Your task to perform on an android device: Go to network settings Image 0: 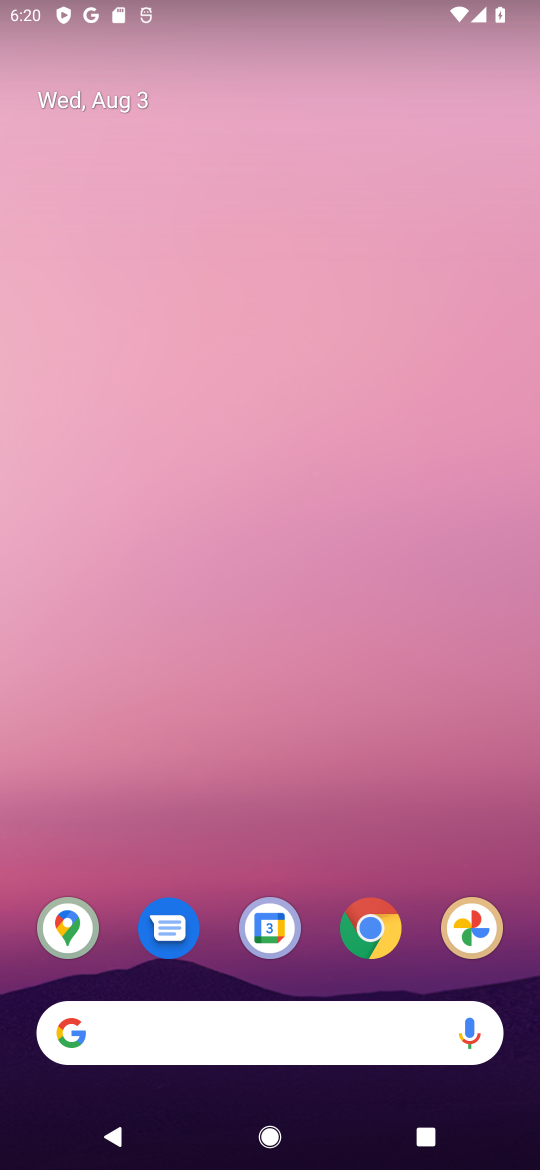
Step 0: press home button
Your task to perform on an android device: Go to network settings Image 1: 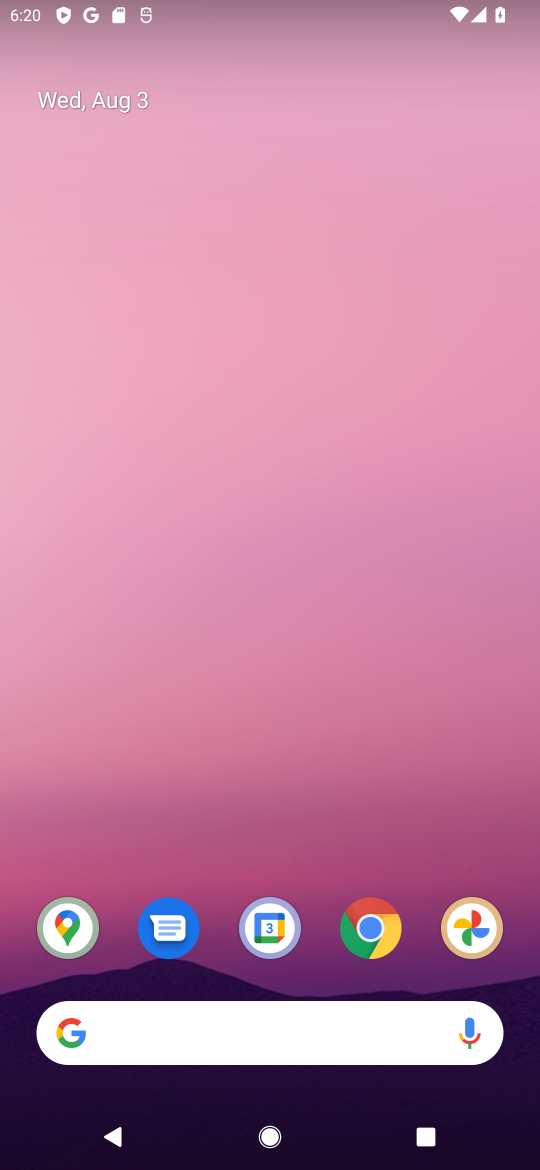
Step 1: drag from (309, 850) to (350, 147)
Your task to perform on an android device: Go to network settings Image 2: 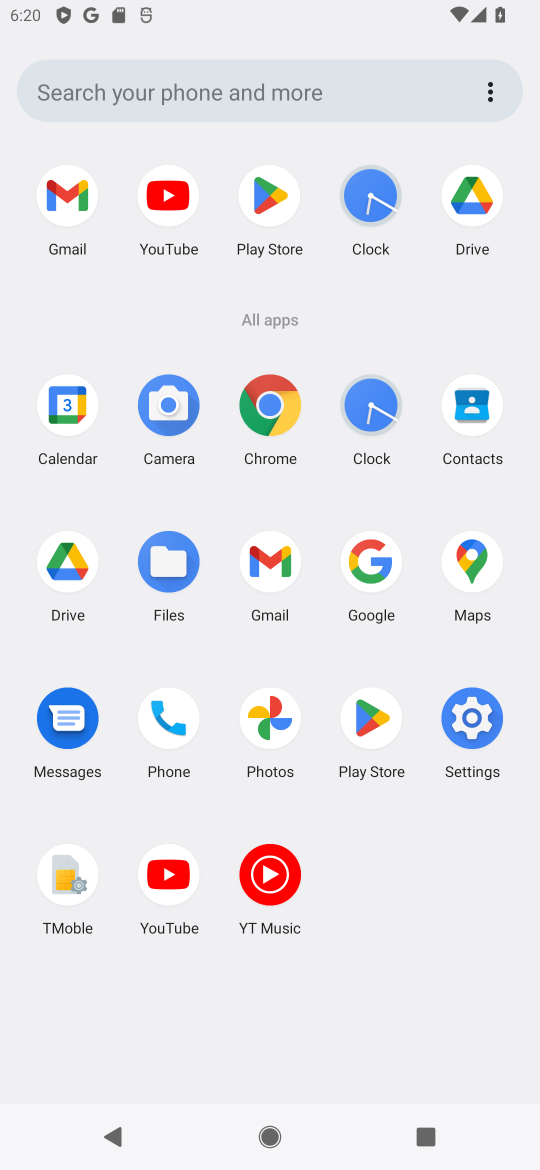
Step 2: click (478, 734)
Your task to perform on an android device: Go to network settings Image 3: 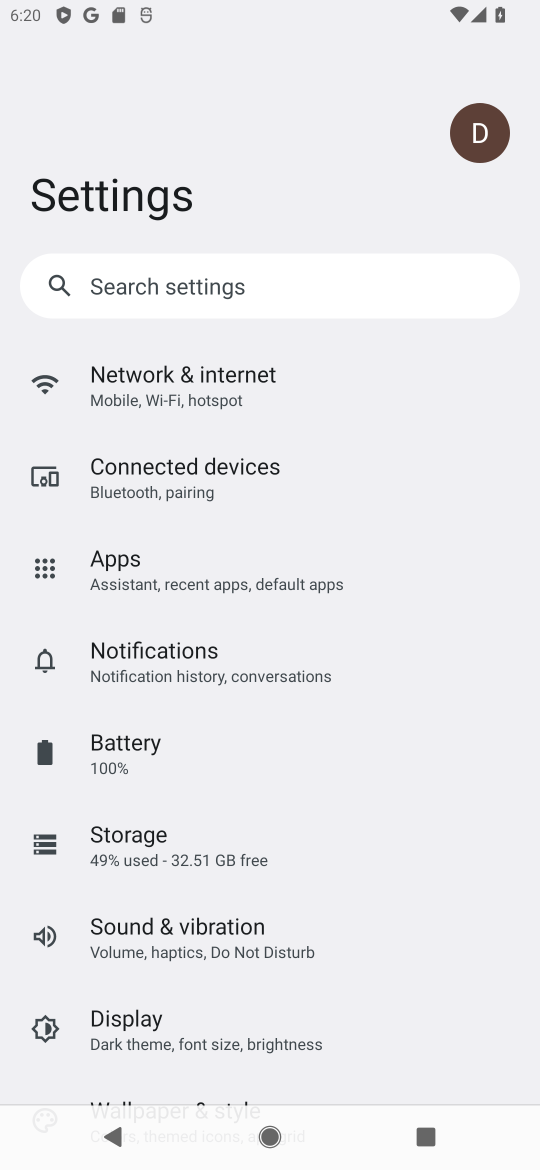
Step 3: drag from (420, 957) to (448, 735)
Your task to perform on an android device: Go to network settings Image 4: 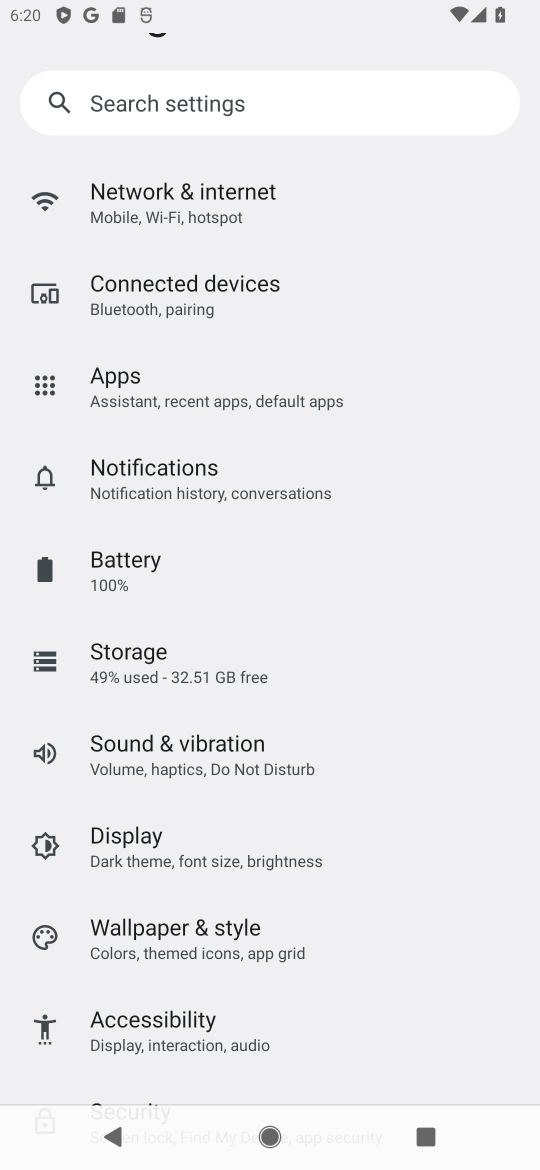
Step 4: drag from (428, 976) to (458, 801)
Your task to perform on an android device: Go to network settings Image 5: 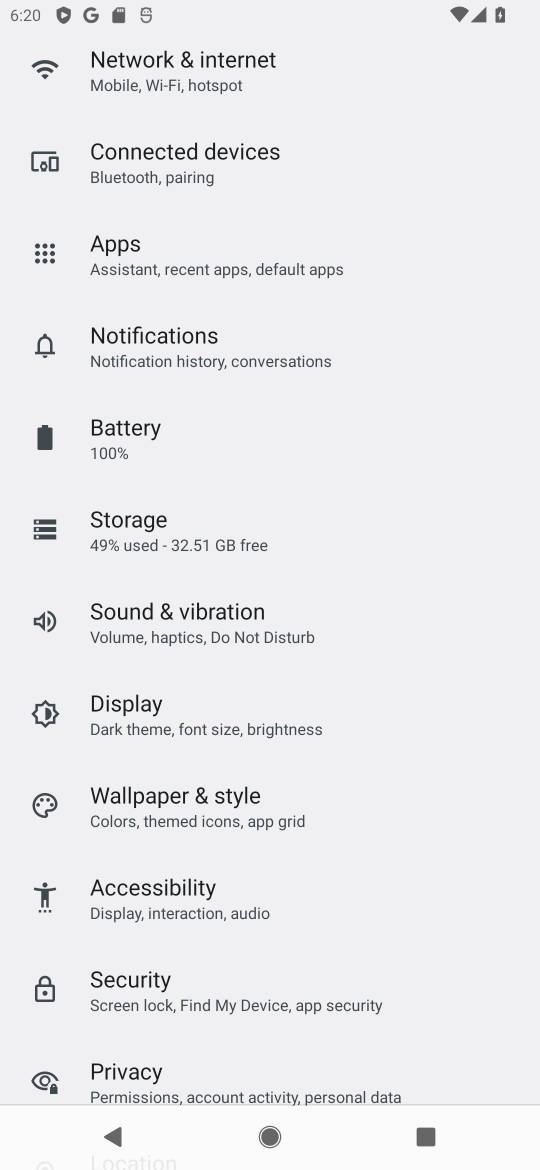
Step 5: drag from (471, 1054) to (465, 725)
Your task to perform on an android device: Go to network settings Image 6: 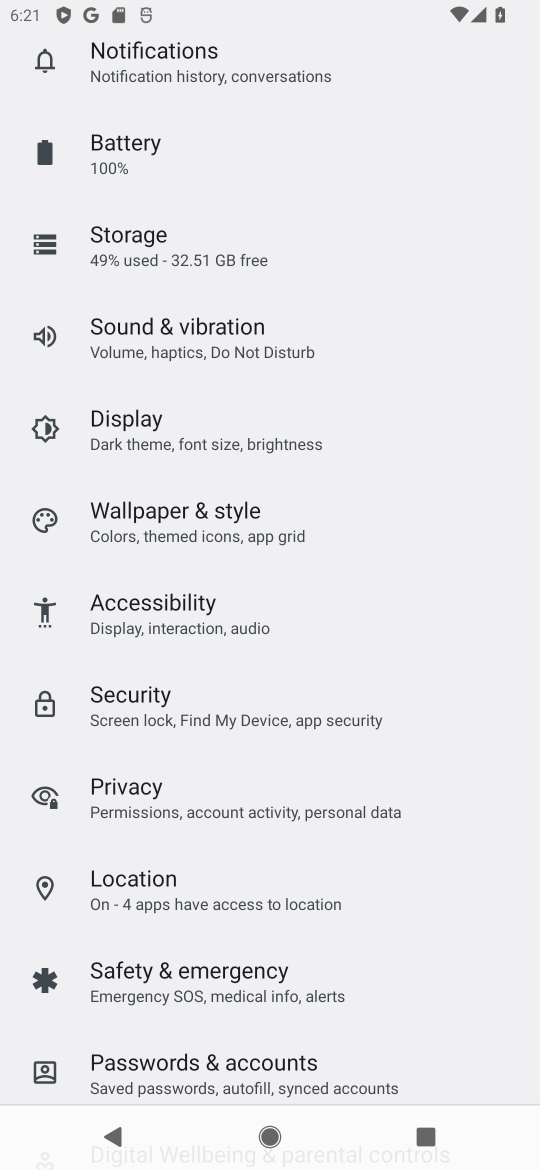
Step 6: drag from (456, 999) to (459, 841)
Your task to perform on an android device: Go to network settings Image 7: 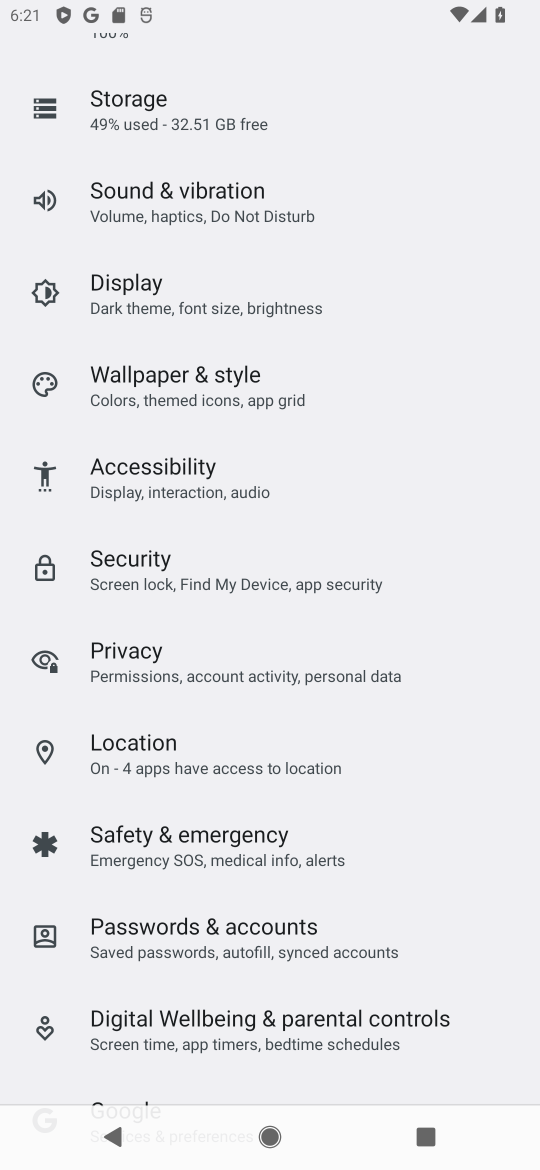
Step 7: drag from (469, 1048) to (459, 769)
Your task to perform on an android device: Go to network settings Image 8: 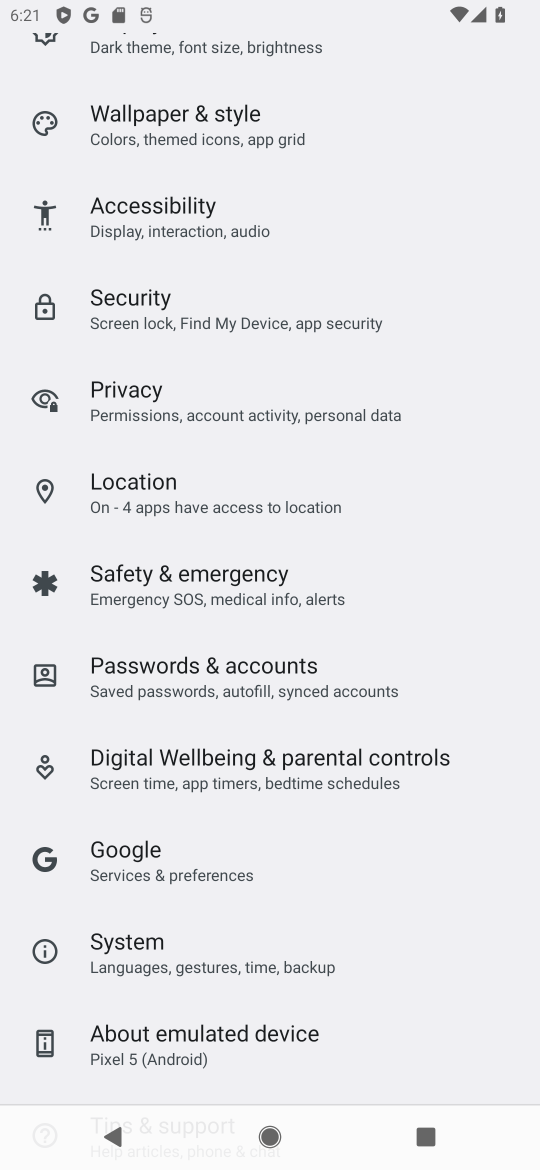
Step 8: drag from (484, 536) to (491, 669)
Your task to perform on an android device: Go to network settings Image 9: 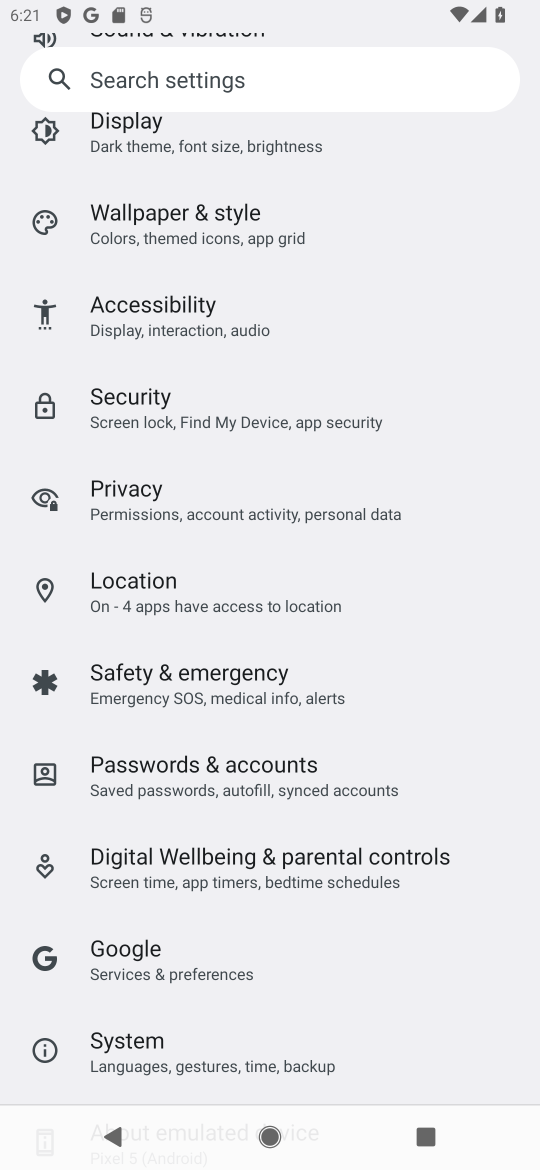
Step 9: drag from (491, 475) to (481, 651)
Your task to perform on an android device: Go to network settings Image 10: 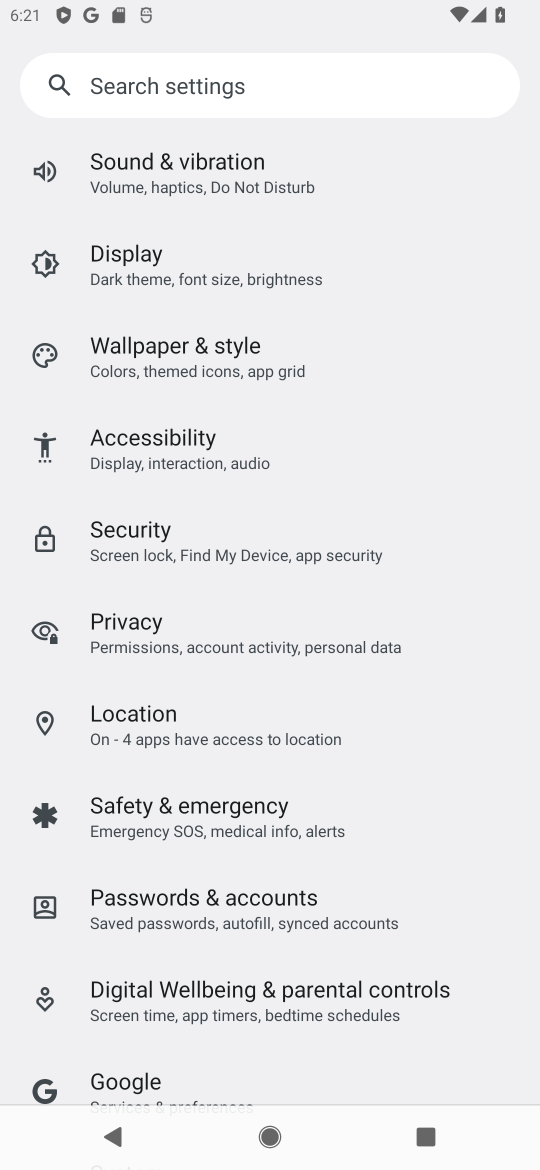
Step 10: drag from (489, 486) to (487, 652)
Your task to perform on an android device: Go to network settings Image 11: 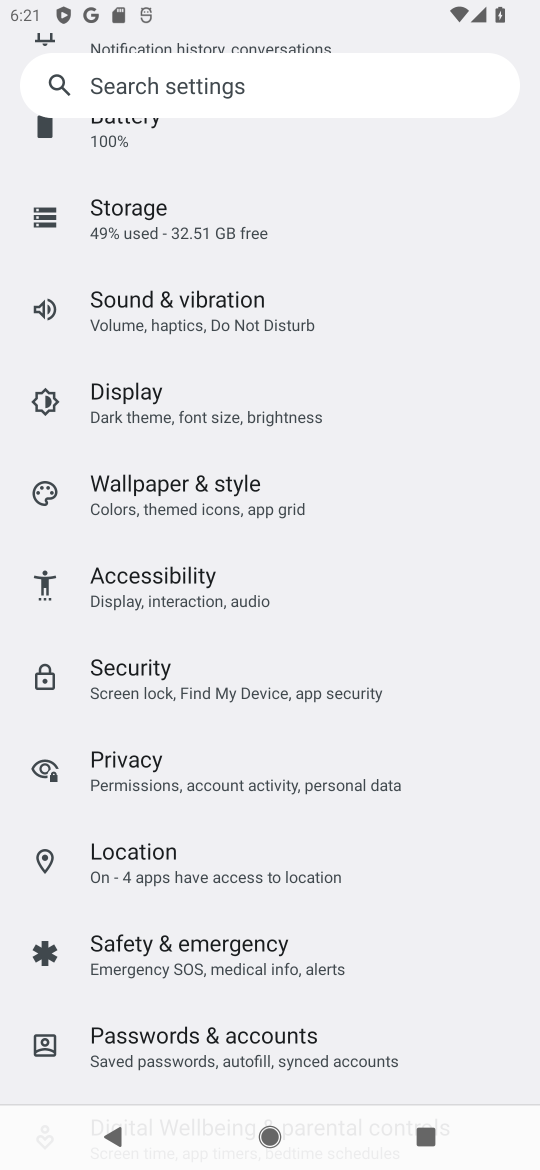
Step 11: drag from (482, 436) to (485, 594)
Your task to perform on an android device: Go to network settings Image 12: 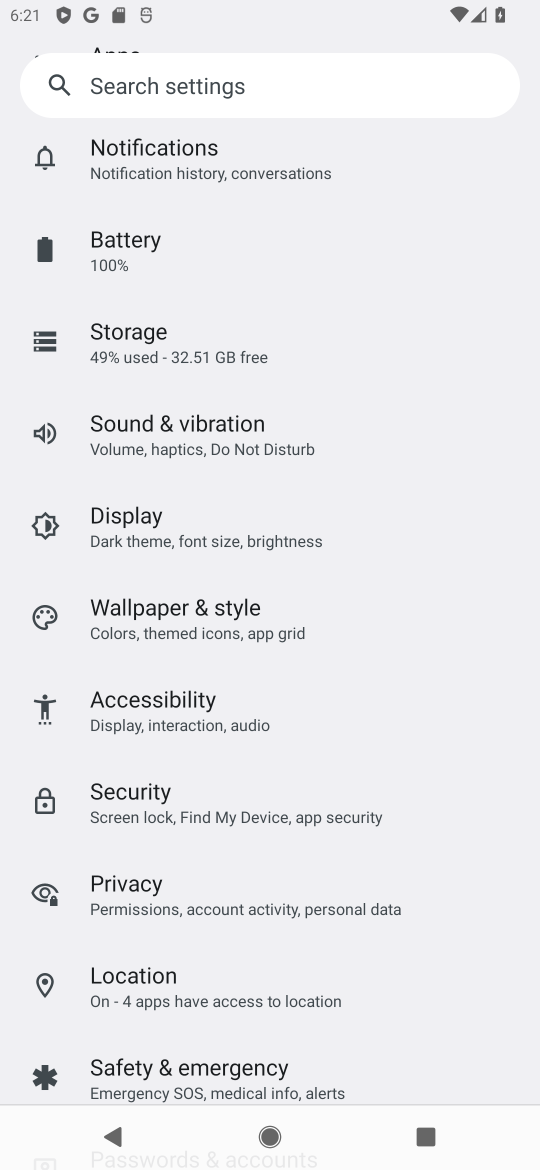
Step 12: drag from (488, 442) to (488, 607)
Your task to perform on an android device: Go to network settings Image 13: 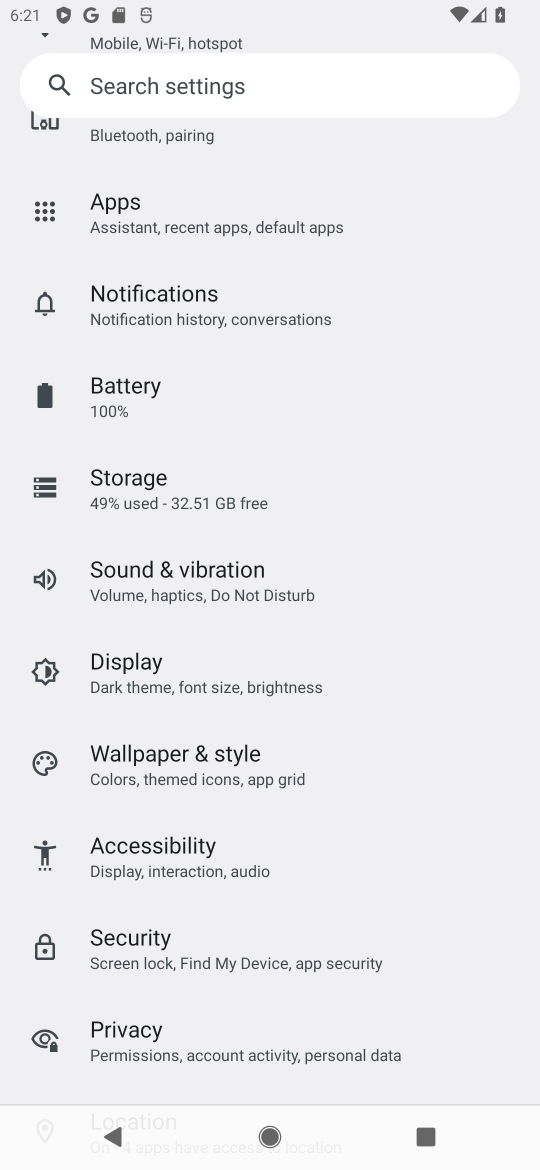
Step 13: drag from (471, 380) to (470, 563)
Your task to perform on an android device: Go to network settings Image 14: 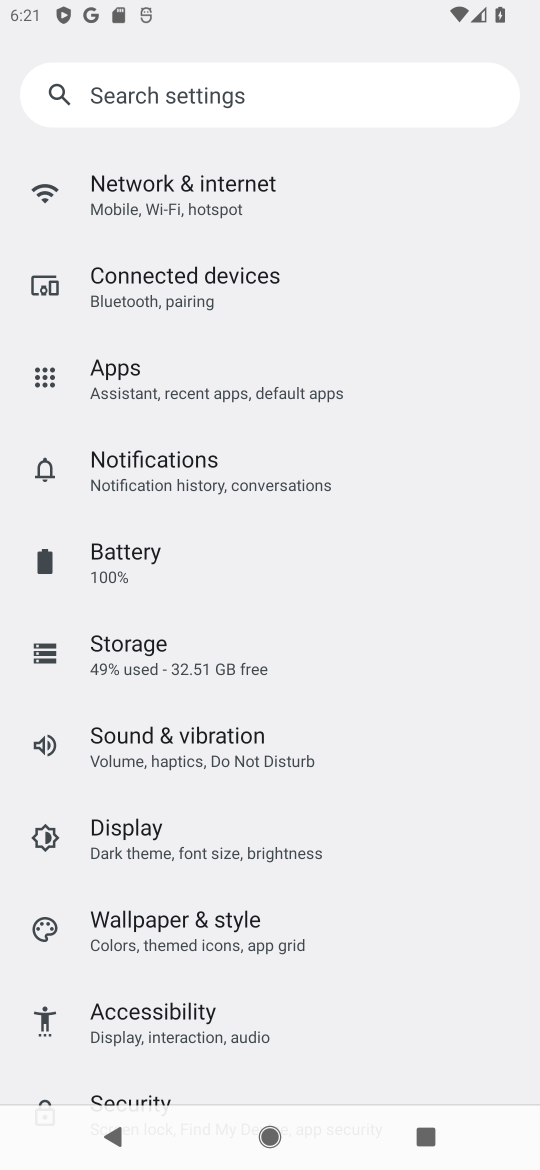
Step 14: drag from (467, 338) to (458, 685)
Your task to perform on an android device: Go to network settings Image 15: 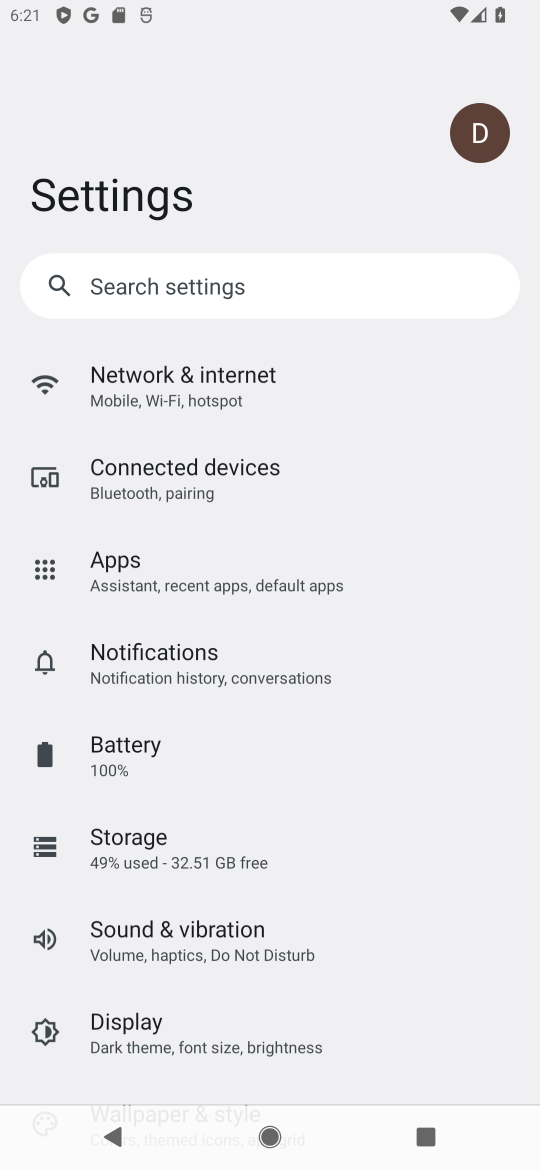
Step 15: click (301, 379)
Your task to perform on an android device: Go to network settings Image 16: 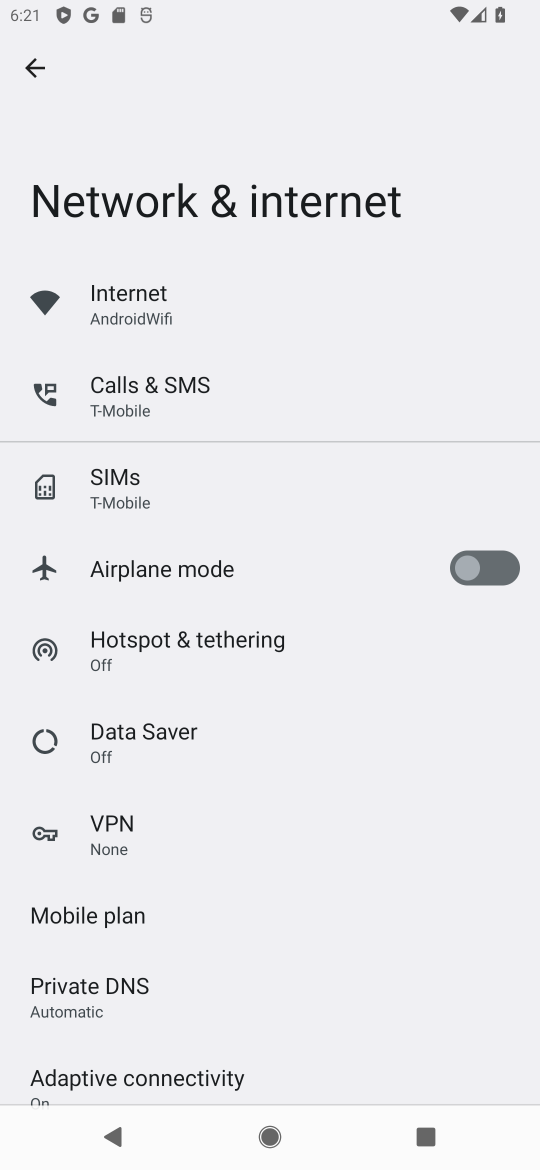
Step 16: task complete